Your task to perform on an android device: remove spam from my inbox in the gmail app Image 0: 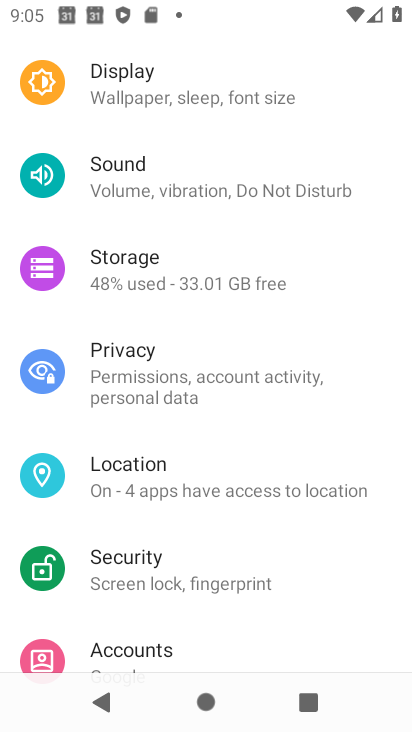
Step 0: press home button
Your task to perform on an android device: remove spam from my inbox in the gmail app Image 1: 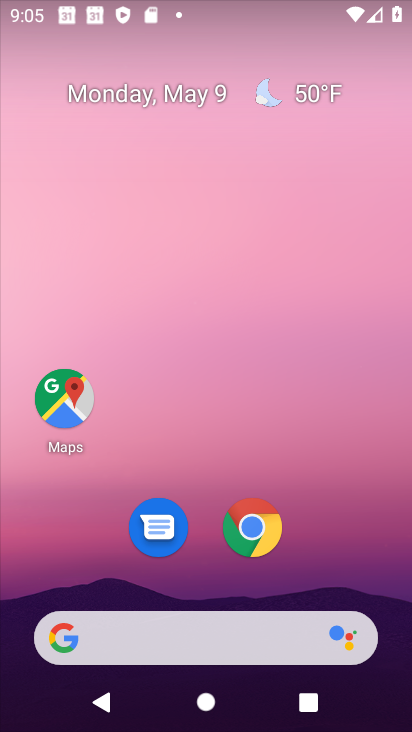
Step 1: drag from (223, 586) to (268, 23)
Your task to perform on an android device: remove spam from my inbox in the gmail app Image 2: 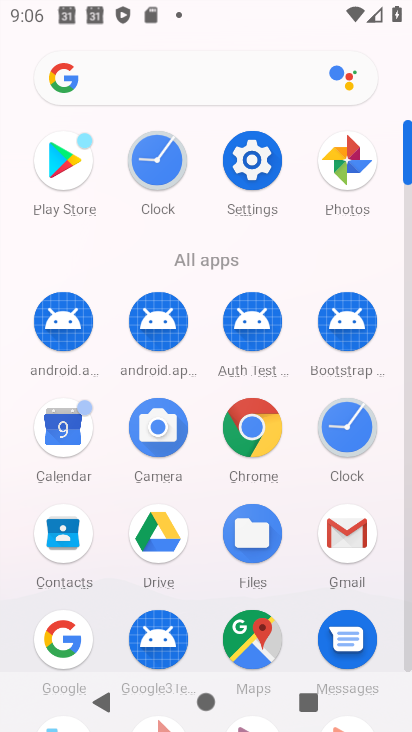
Step 2: click (343, 543)
Your task to perform on an android device: remove spam from my inbox in the gmail app Image 3: 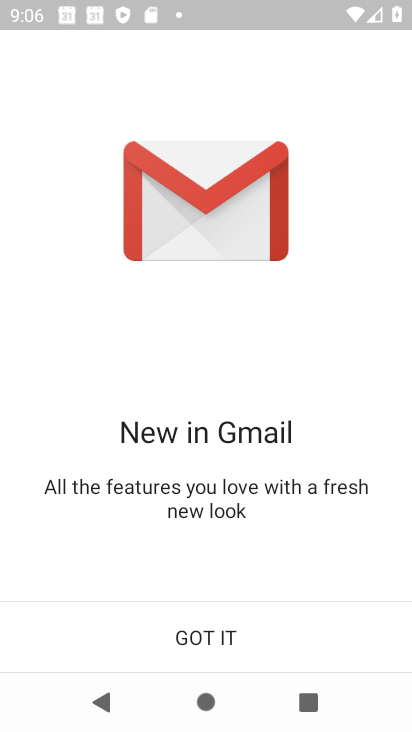
Step 3: click (205, 638)
Your task to perform on an android device: remove spam from my inbox in the gmail app Image 4: 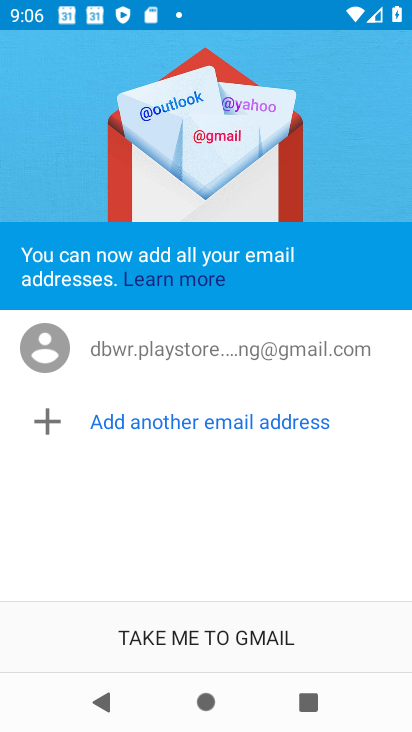
Step 4: click (205, 638)
Your task to perform on an android device: remove spam from my inbox in the gmail app Image 5: 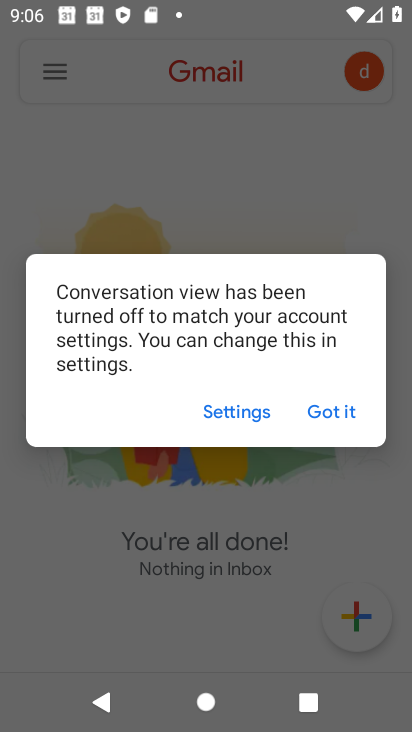
Step 5: click (344, 422)
Your task to perform on an android device: remove spam from my inbox in the gmail app Image 6: 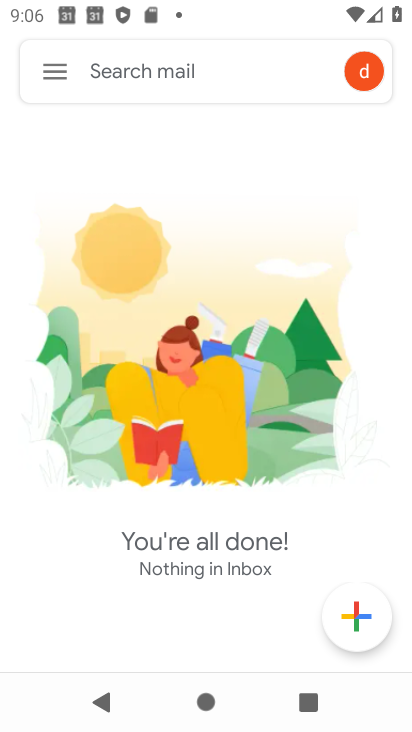
Step 6: click (46, 80)
Your task to perform on an android device: remove spam from my inbox in the gmail app Image 7: 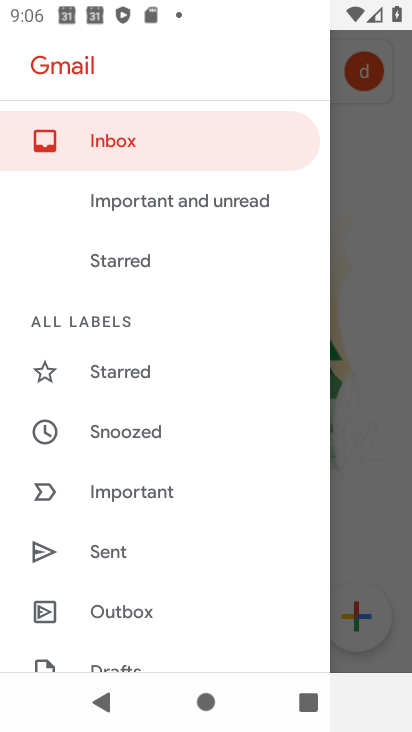
Step 7: drag from (82, 589) to (159, 249)
Your task to perform on an android device: remove spam from my inbox in the gmail app Image 8: 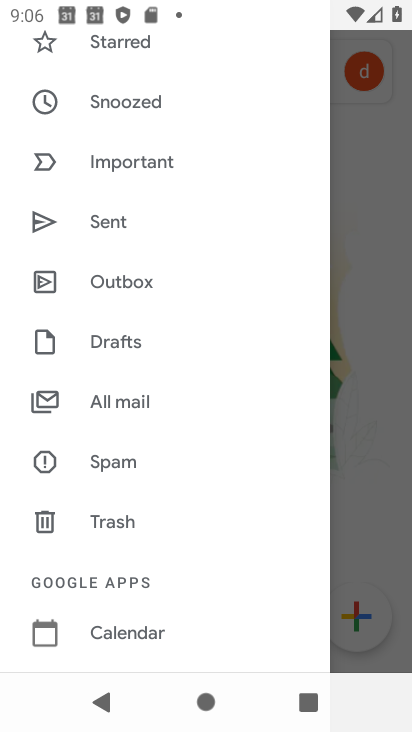
Step 8: drag from (160, 551) to (180, 391)
Your task to perform on an android device: remove spam from my inbox in the gmail app Image 9: 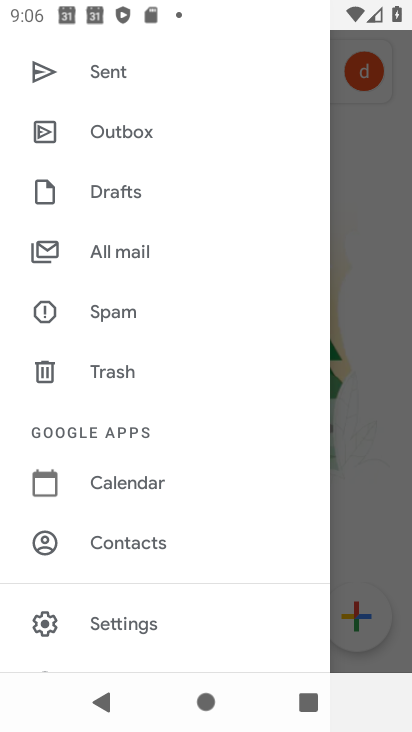
Step 9: click (115, 325)
Your task to perform on an android device: remove spam from my inbox in the gmail app Image 10: 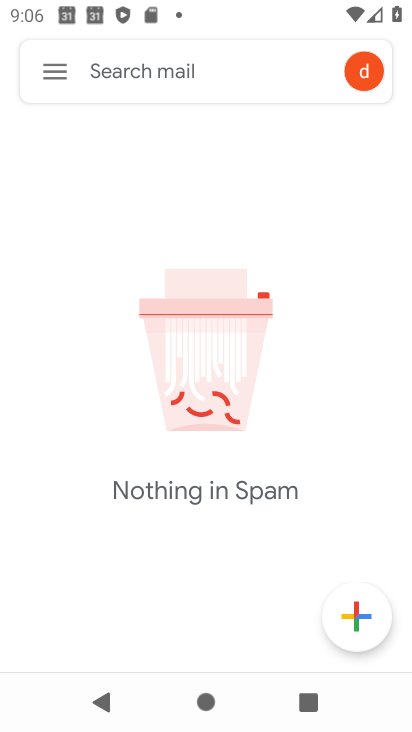
Step 10: task complete